Your task to perform on an android device: Open the calendar and show me this week's events? Image 0: 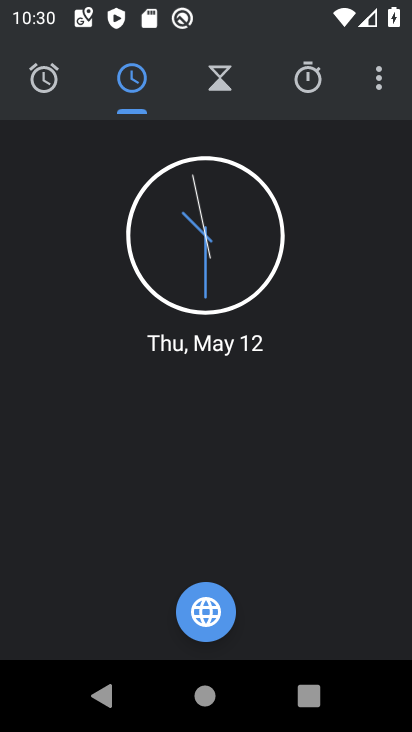
Step 0: press home button
Your task to perform on an android device: Open the calendar and show me this week's events? Image 1: 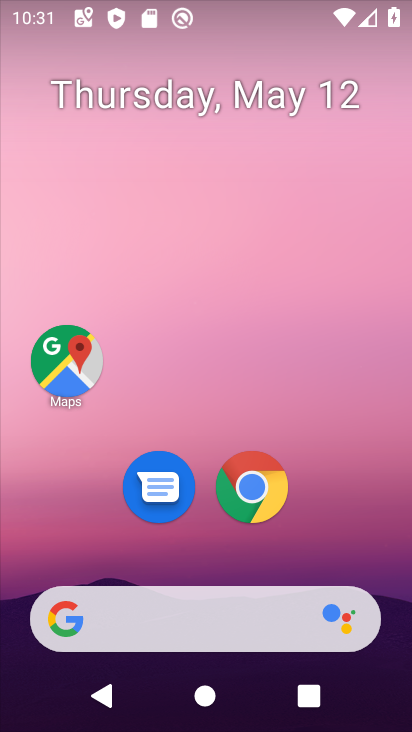
Step 1: drag from (94, 399) to (204, 197)
Your task to perform on an android device: Open the calendar and show me this week's events? Image 2: 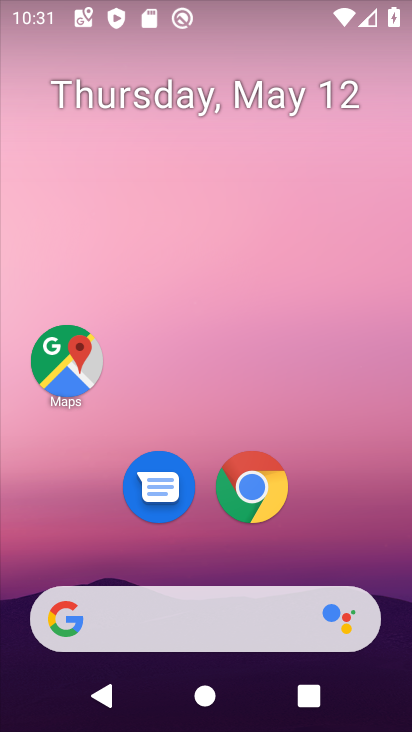
Step 2: drag from (26, 409) to (121, 236)
Your task to perform on an android device: Open the calendar and show me this week's events? Image 3: 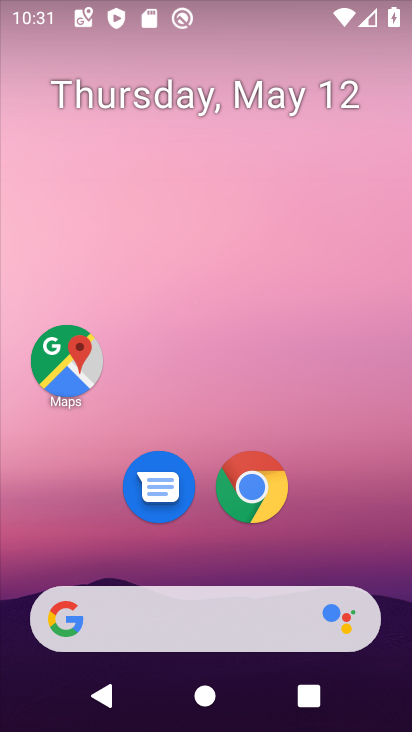
Step 3: drag from (82, 409) to (245, 140)
Your task to perform on an android device: Open the calendar and show me this week's events? Image 4: 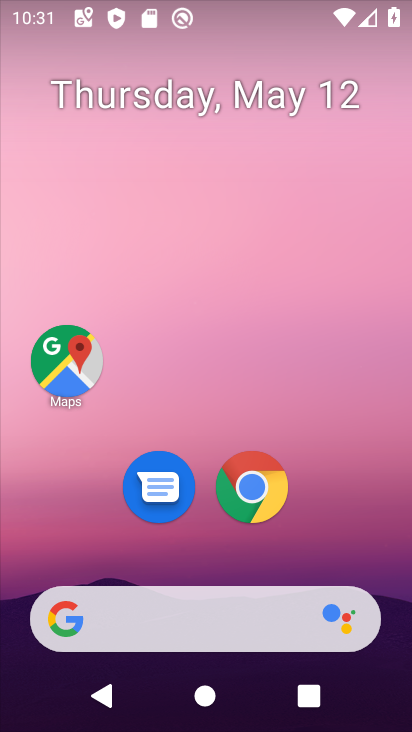
Step 4: drag from (29, 632) to (277, 140)
Your task to perform on an android device: Open the calendar and show me this week's events? Image 5: 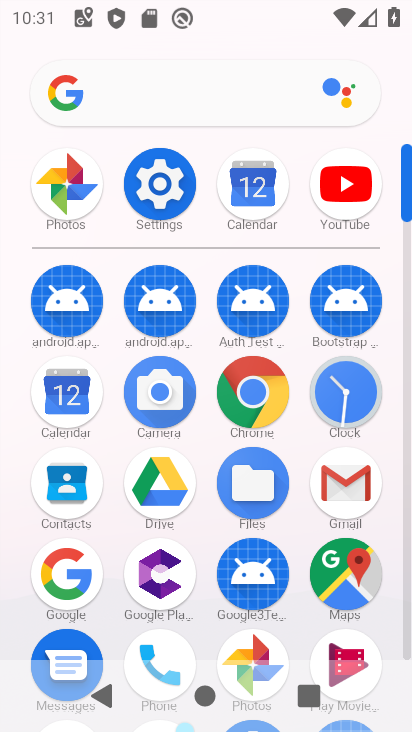
Step 5: click (251, 198)
Your task to perform on an android device: Open the calendar and show me this week's events? Image 6: 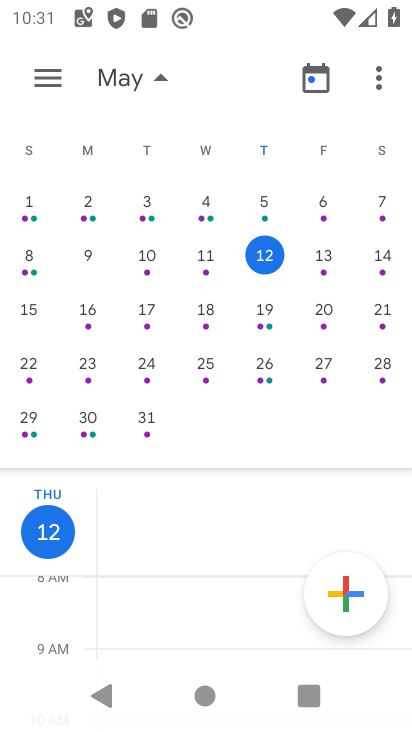
Step 6: click (89, 307)
Your task to perform on an android device: Open the calendar and show me this week's events? Image 7: 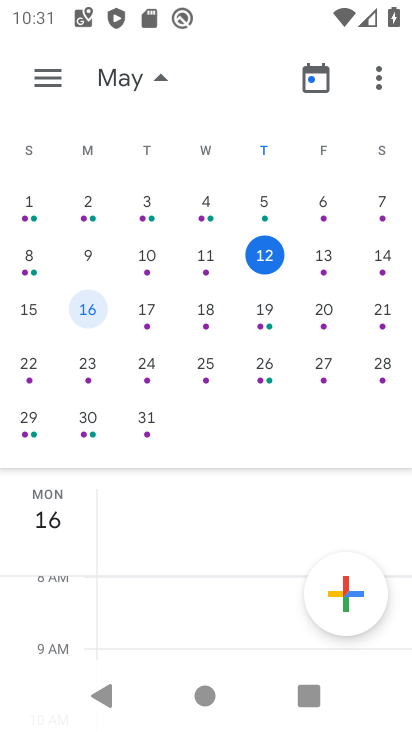
Step 7: task complete